Your task to perform on an android device: turn on priority inbox in the gmail app Image 0: 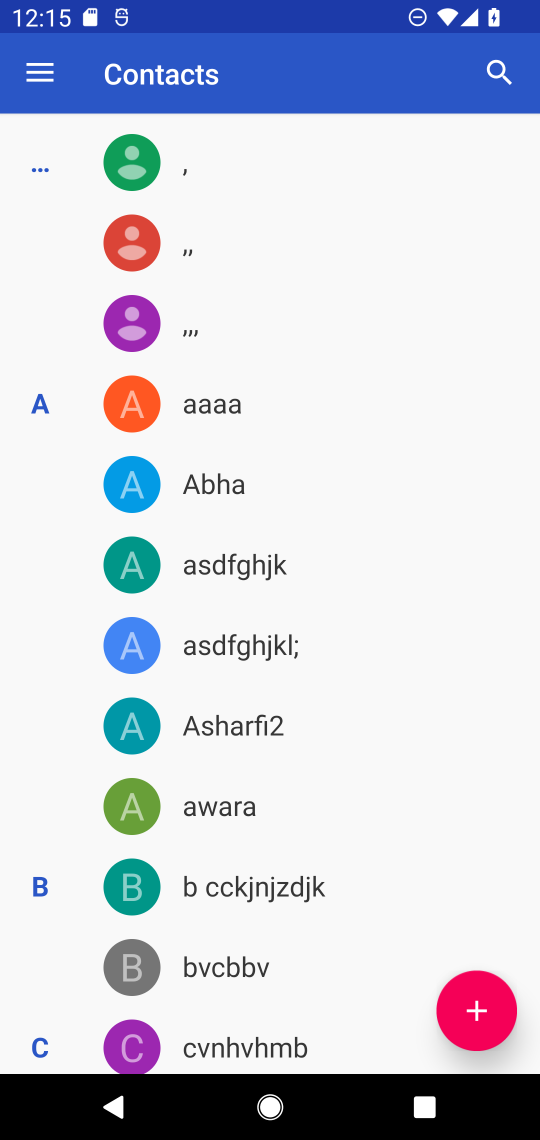
Step 0: press home button
Your task to perform on an android device: turn on priority inbox in the gmail app Image 1: 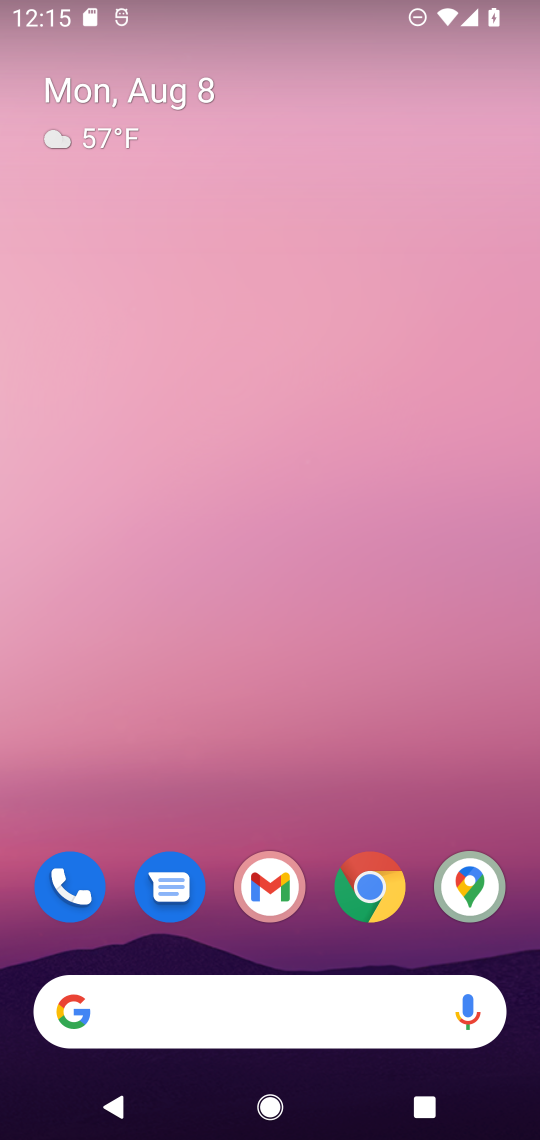
Step 1: click (271, 885)
Your task to perform on an android device: turn on priority inbox in the gmail app Image 2: 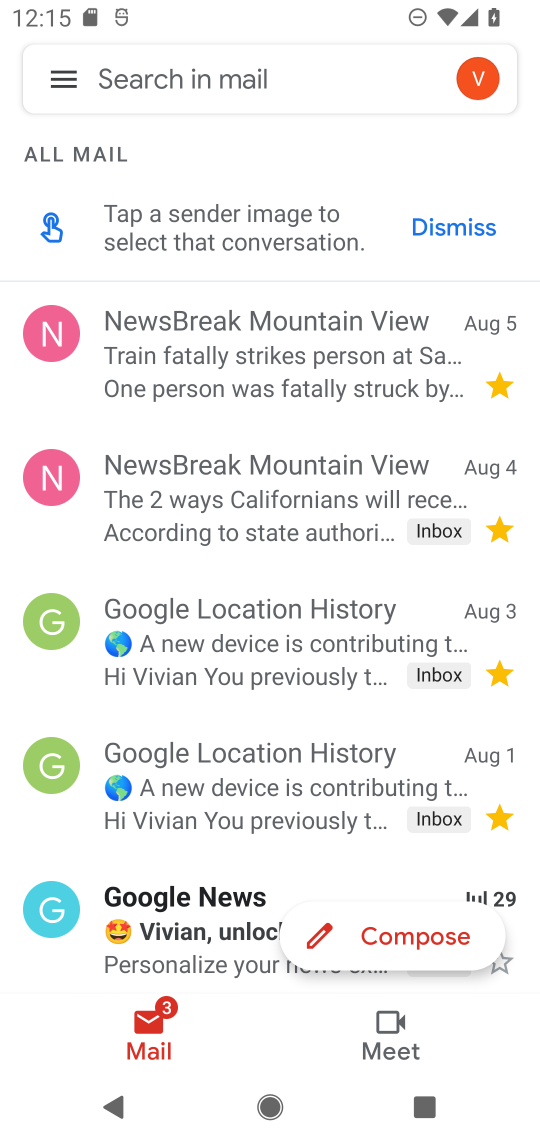
Step 2: click (63, 75)
Your task to perform on an android device: turn on priority inbox in the gmail app Image 3: 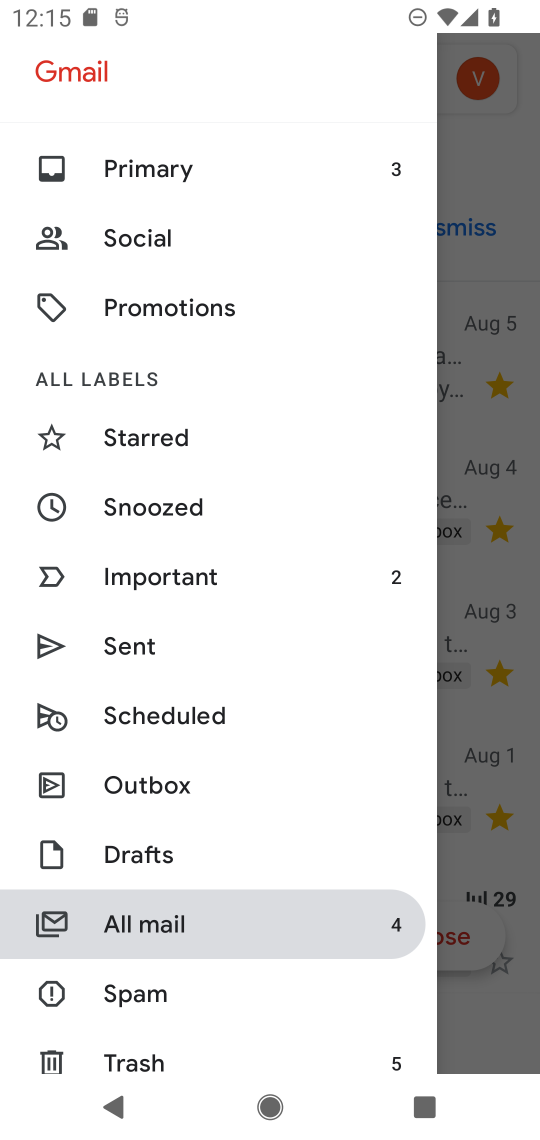
Step 3: drag from (253, 860) to (253, 349)
Your task to perform on an android device: turn on priority inbox in the gmail app Image 4: 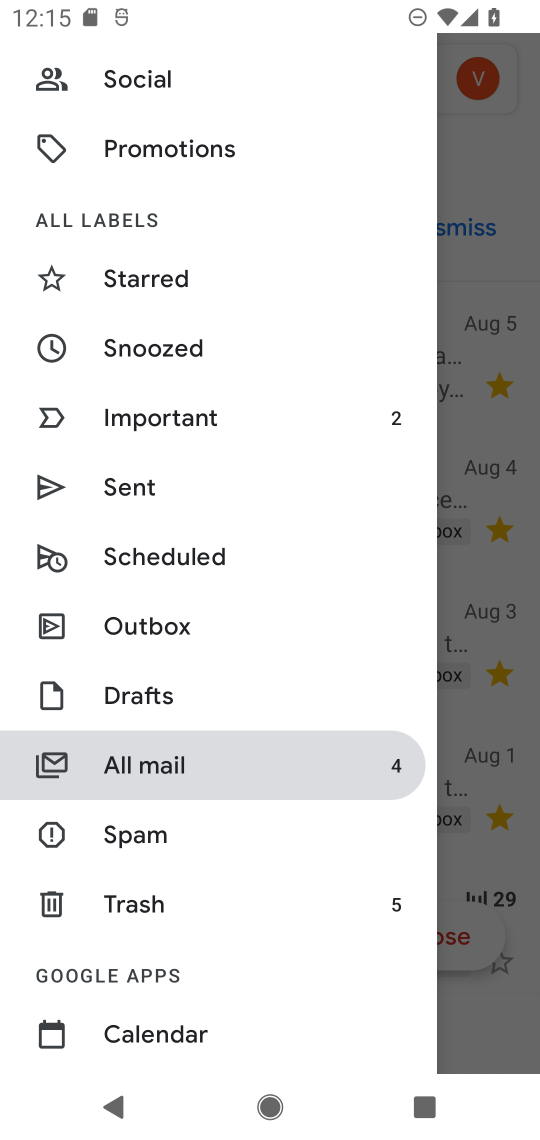
Step 4: drag from (220, 865) to (212, 253)
Your task to perform on an android device: turn on priority inbox in the gmail app Image 5: 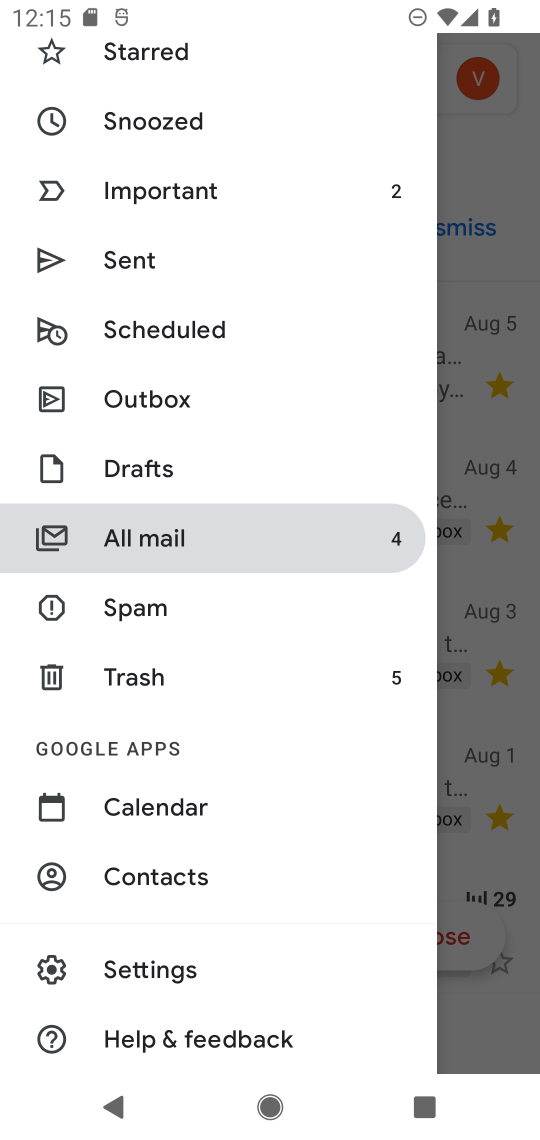
Step 5: click (169, 961)
Your task to perform on an android device: turn on priority inbox in the gmail app Image 6: 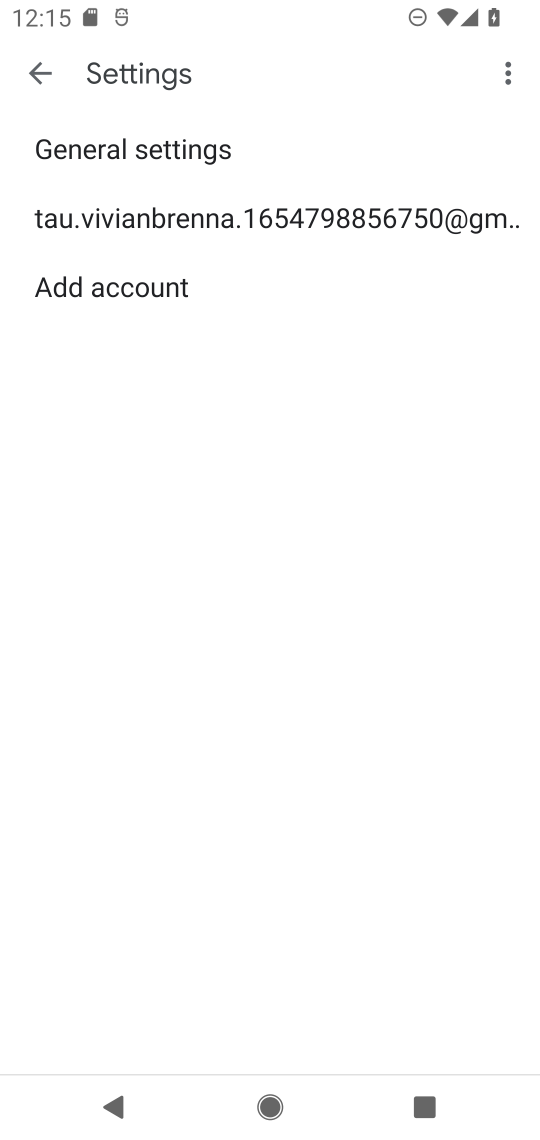
Step 6: click (153, 218)
Your task to perform on an android device: turn on priority inbox in the gmail app Image 7: 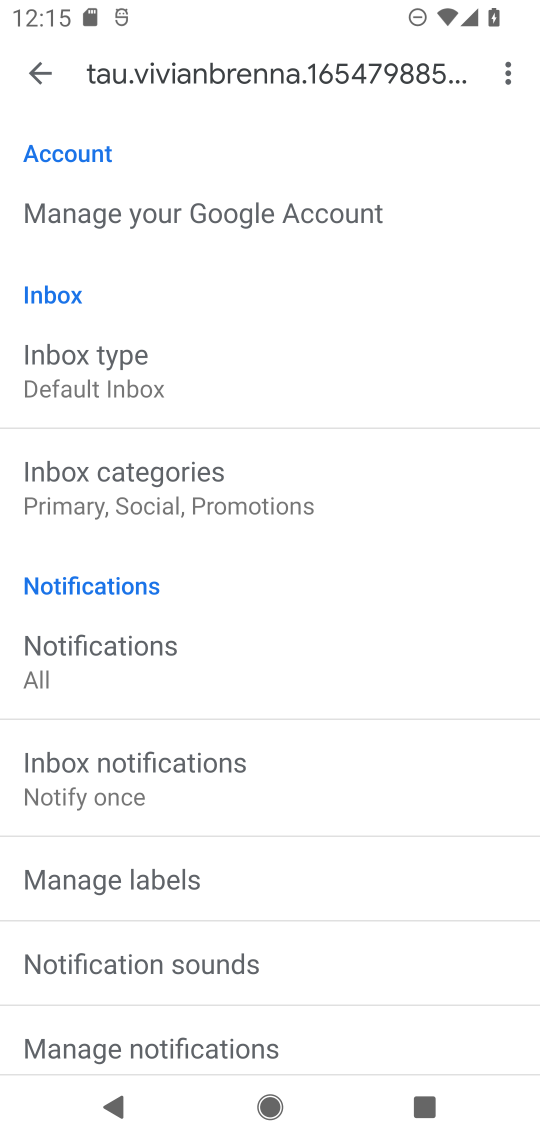
Step 7: click (108, 369)
Your task to perform on an android device: turn on priority inbox in the gmail app Image 8: 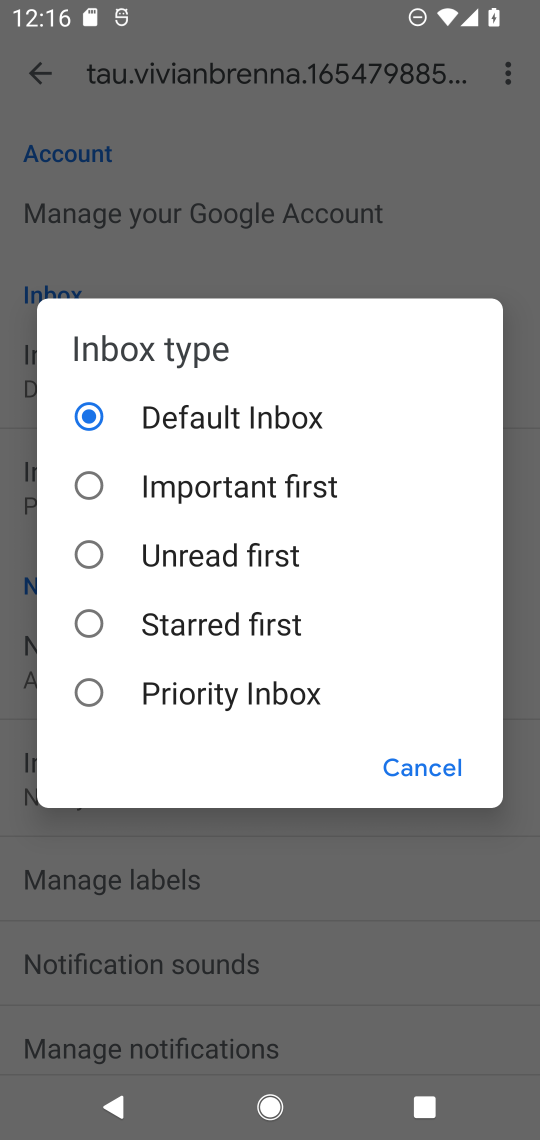
Step 8: click (94, 694)
Your task to perform on an android device: turn on priority inbox in the gmail app Image 9: 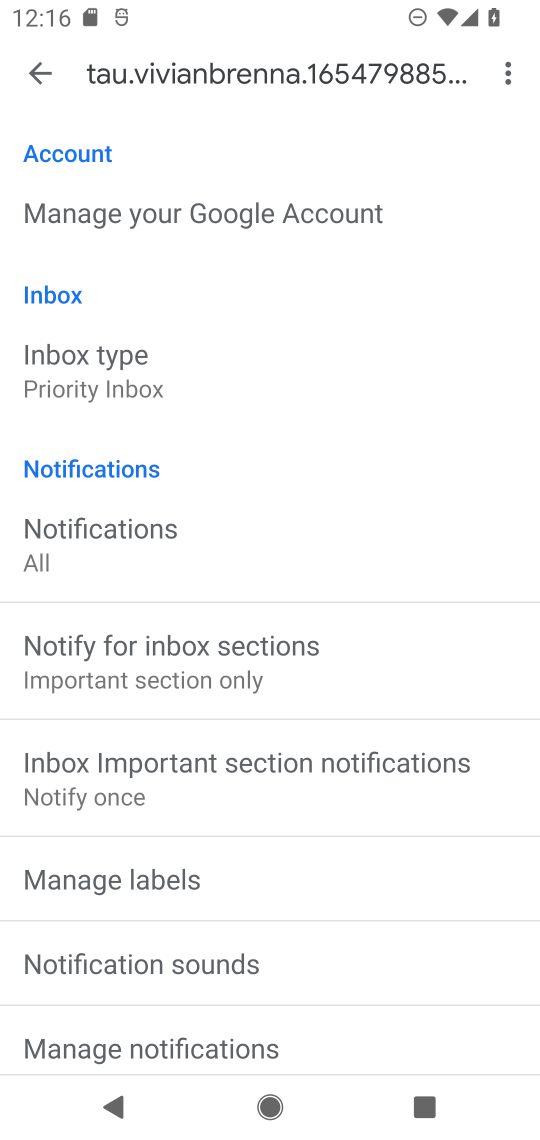
Step 9: task complete